Your task to perform on an android device: open chrome privacy settings Image 0: 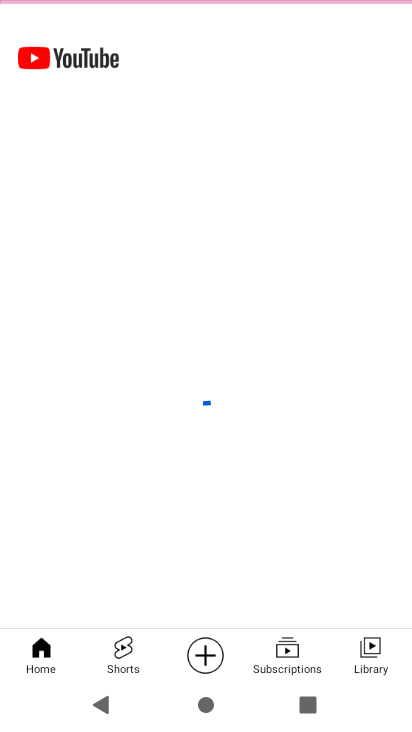
Step 0: click (168, 198)
Your task to perform on an android device: open chrome privacy settings Image 1: 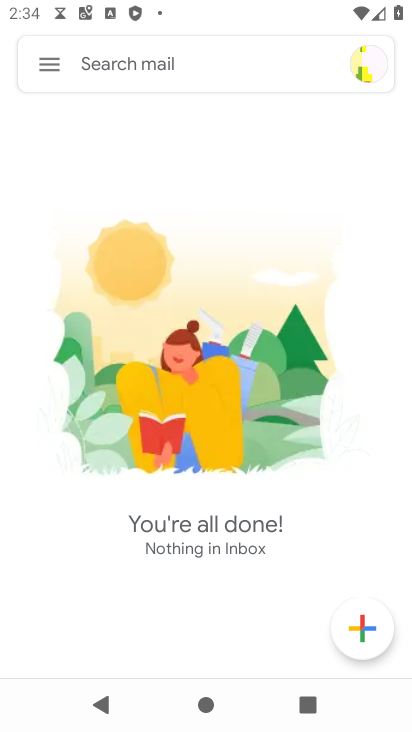
Step 1: press home button
Your task to perform on an android device: open chrome privacy settings Image 2: 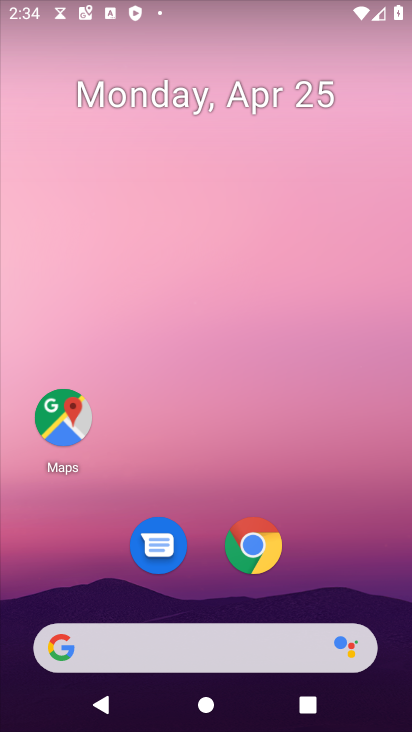
Step 2: click (265, 547)
Your task to perform on an android device: open chrome privacy settings Image 3: 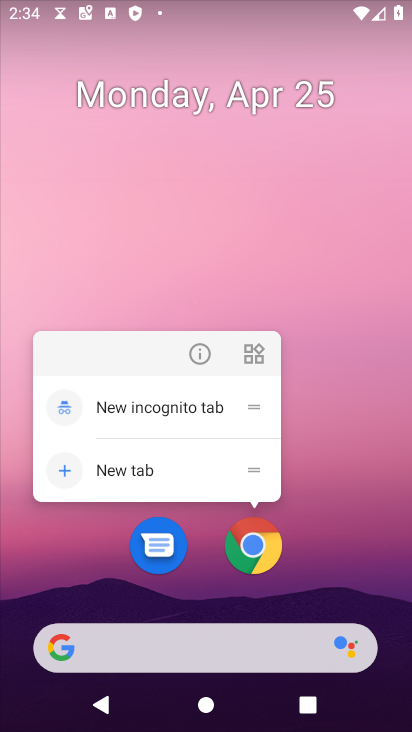
Step 3: click (265, 547)
Your task to perform on an android device: open chrome privacy settings Image 4: 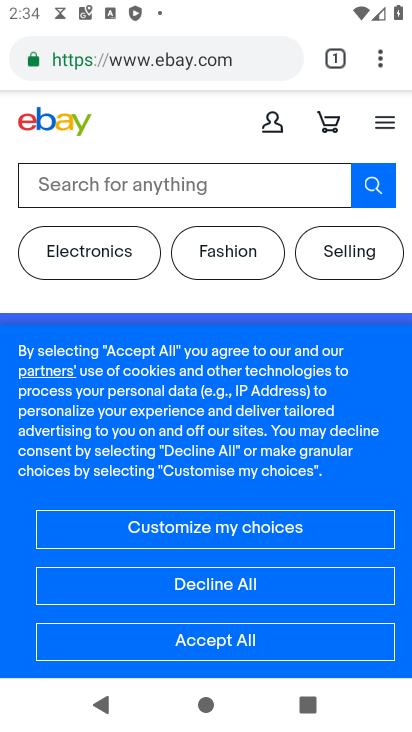
Step 4: drag from (376, 62) to (191, 566)
Your task to perform on an android device: open chrome privacy settings Image 5: 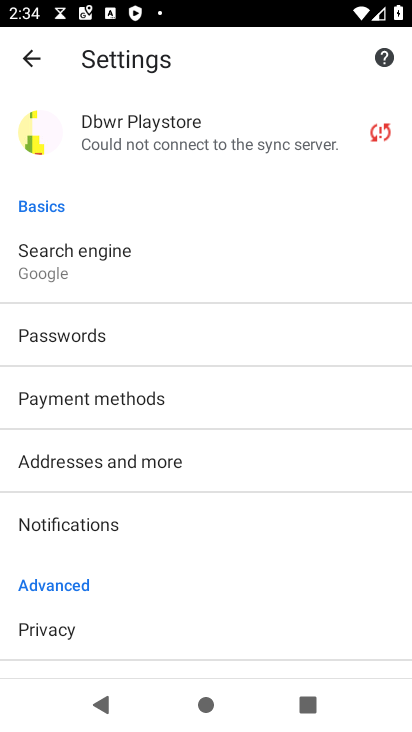
Step 5: drag from (147, 545) to (190, 83)
Your task to perform on an android device: open chrome privacy settings Image 6: 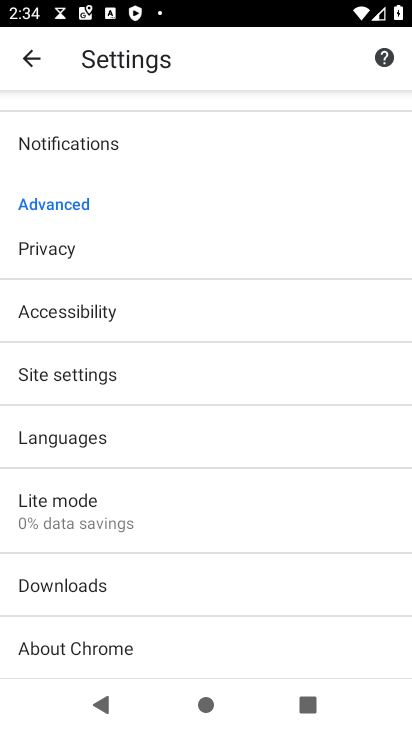
Step 6: click (68, 247)
Your task to perform on an android device: open chrome privacy settings Image 7: 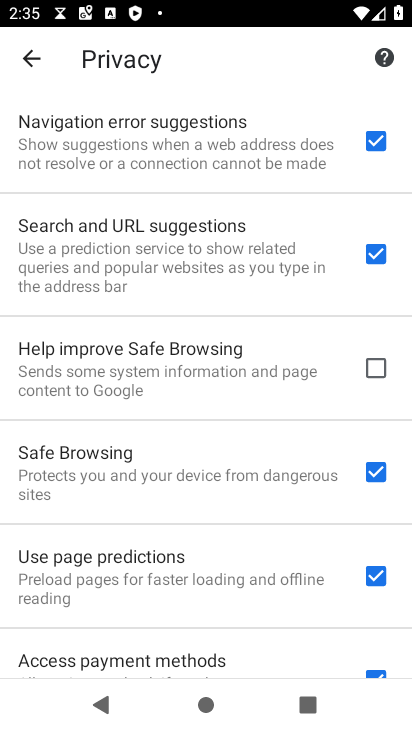
Step 7: press back button
Your task to perform on an android device: open chrome privacy settings Image 8: 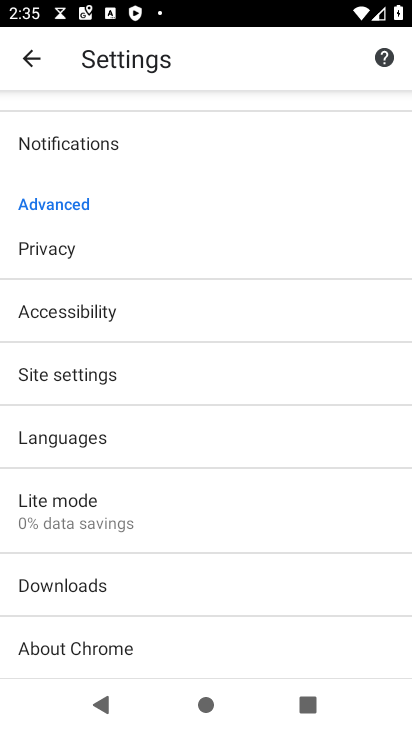
Step 8: click (93, 248)
Your task to perform on an android device: open chrome privacy settings Image 9: 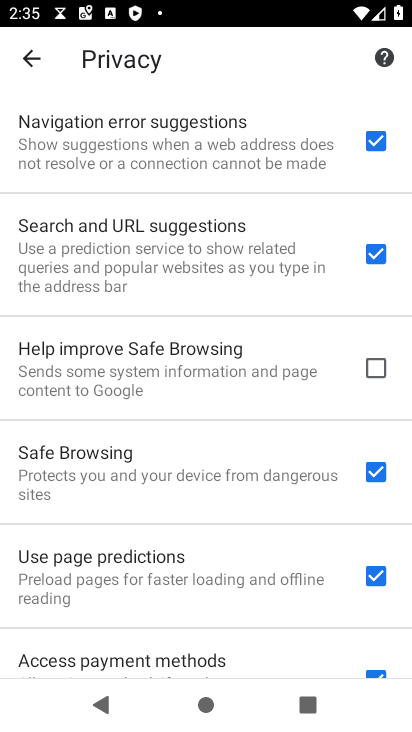
Step 9: task complete